Your task to perform on an android device: toggle data saver in the chrome app Image 0: 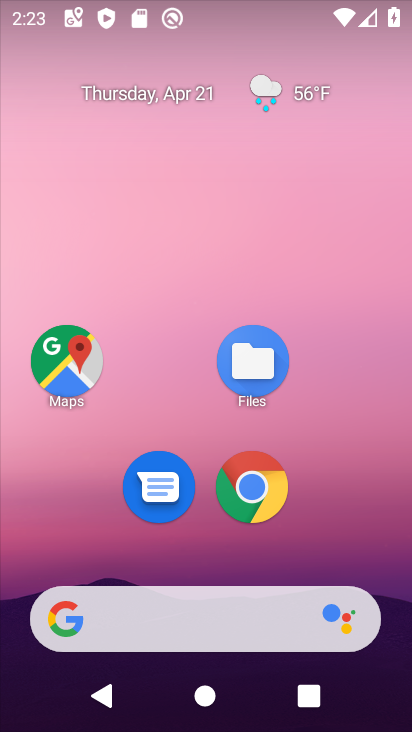
Step 0: click (270, 490)
Your task to perform on an android device: toggle data saver in the chrome app Image 1: 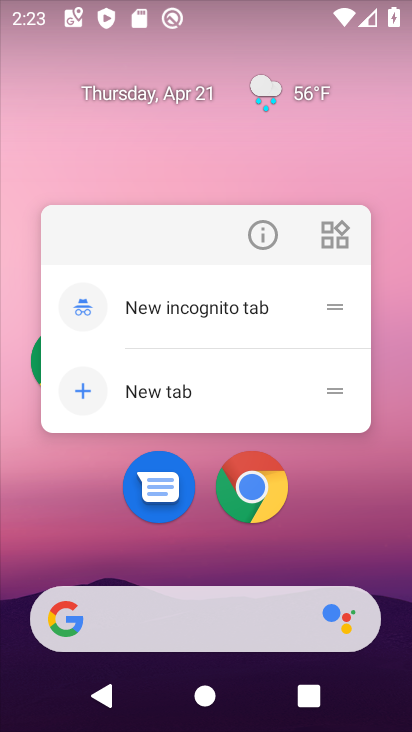
Step 1: click (259, 510)
Your task to perform on an android device: toggle data saver in the chrome app Image 2: 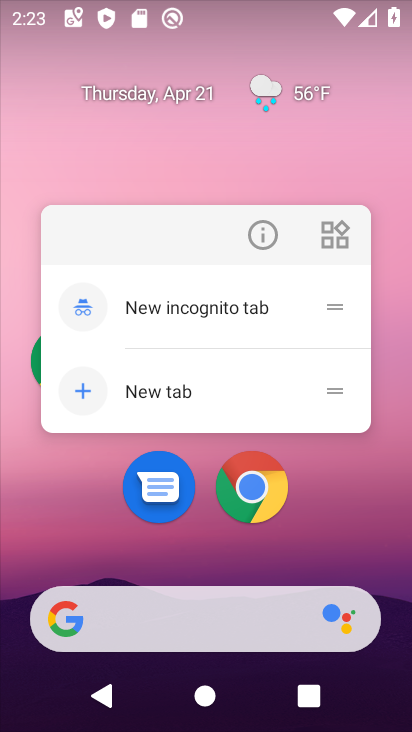
Step 2: click (274, 500)
Your task to perform on an android device: toggle data saver in the chrome app Image 3: 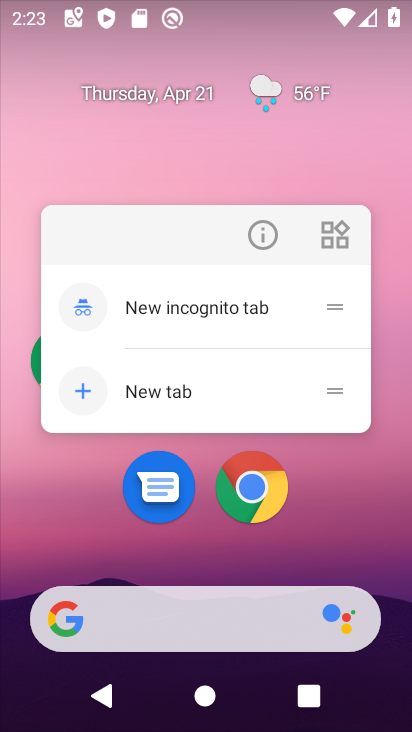
Step 3: drag from (354, 526) to (410, 157)
Your task to perform on an android device: toggle data saver in the chrome app Image 4: 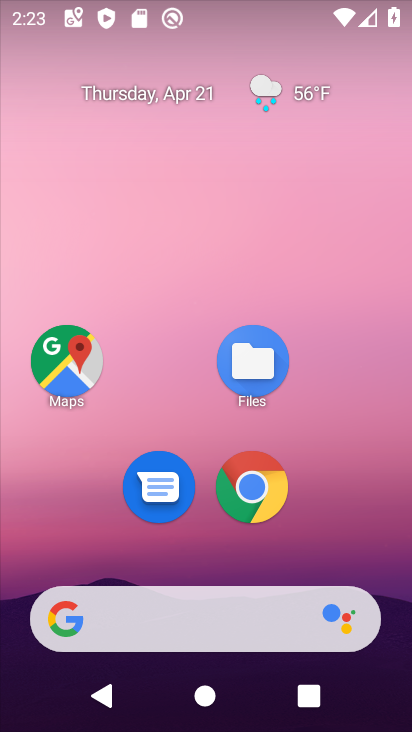
Step 4: drag from (356, 504) to (375, 125)
Your task to perform on an android device: toggle data saver in the chrome app Image 5: 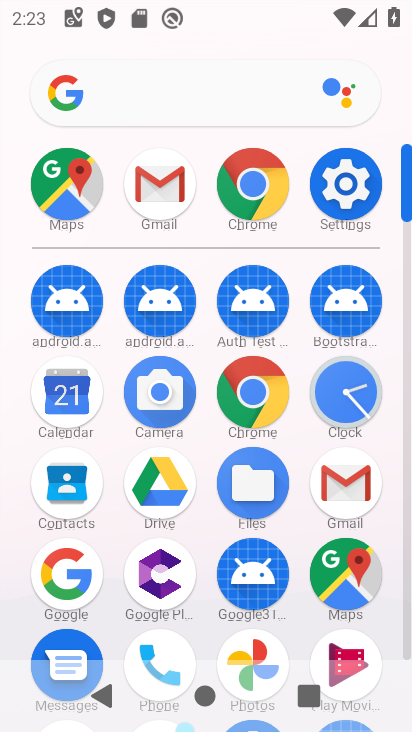
Step 5: click (263, 402)
Your task to perform on an android device: toggle data saver in the chrome app Image 6: 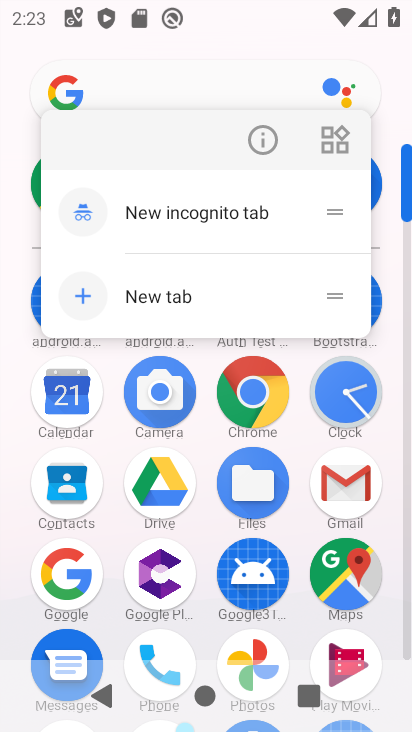
Step 6: click (262, 415)
Your task to perform on an android device: toggle data saver in the chrome app Image 7: 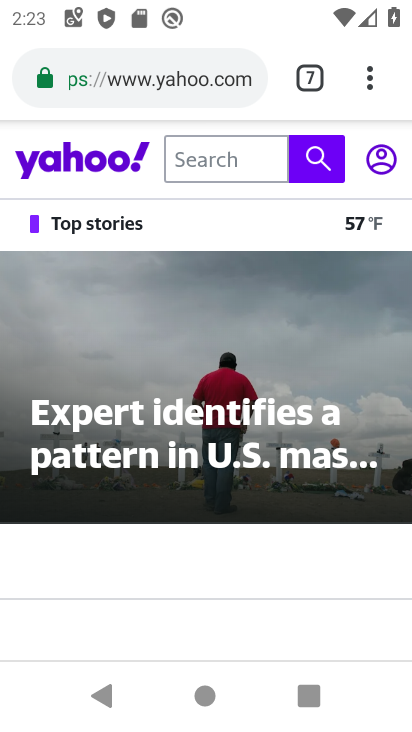
Step 7: click (368, 84)
Your task to perform on an android device: toggle data saver in the chrome app Image 8: 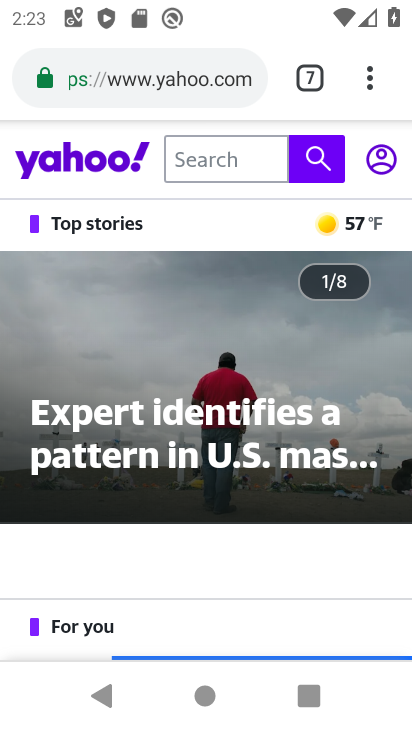
Step 8: drag from (368, 78) to (156, 542)
Your task to perform on an android device: toggle data saver in the chrome app Image 9: 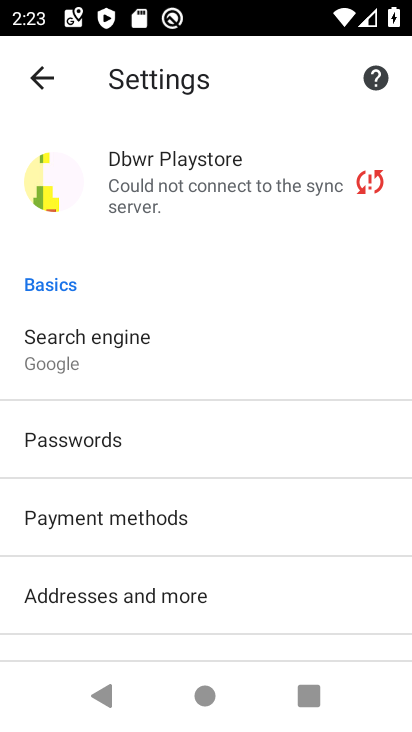
Step 9: drag from (248, 585) to (293, 160)
Your task to perform on an android device: toggle data saver in the chrome app Image 10: 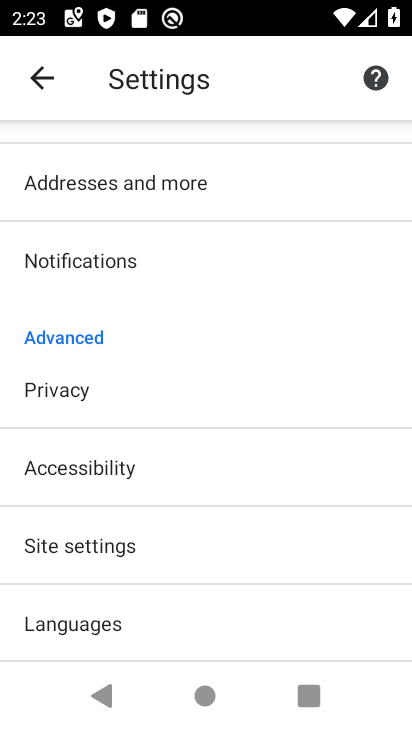
Step 10: drag from (219, 567) to (298, 244)
Your task to perform on an android device: toggle data saver in the chrome app Image 11: 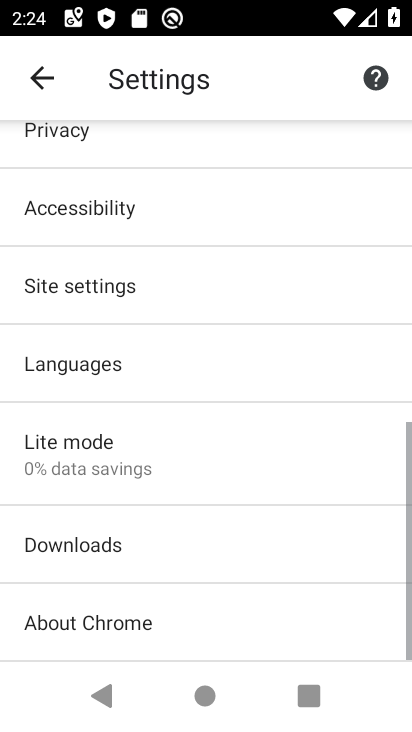
Step 11: click (109, 447)
Your task to perform on an android device: toggle data saver in the chrome app Image 12: 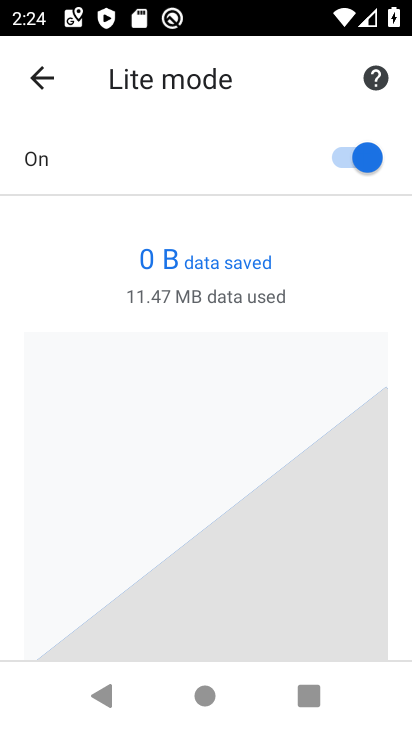
Step 12: click (340, 148)
Your task to perform on an android device: toggle data saver in the chrome app Image 13: 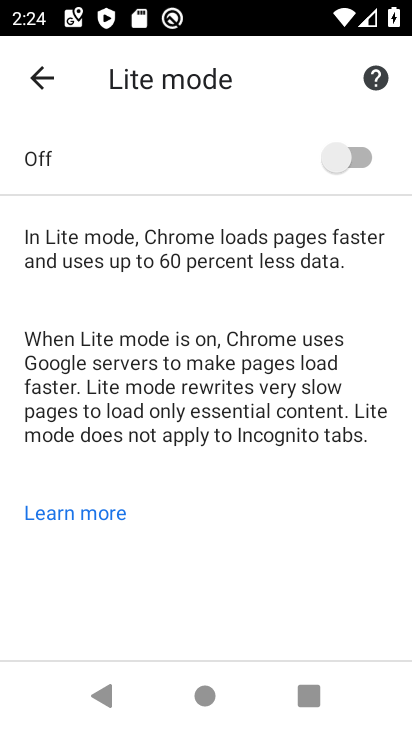
Step 13: task complete